Your task to perform on an android device: When is my next meeting? Image 0: 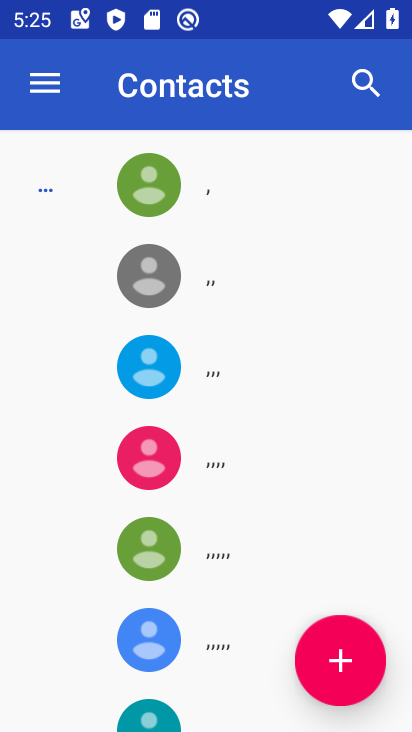
Step 0: press home button
Your task to perform on an android device: When is my next meeting? Image 1: 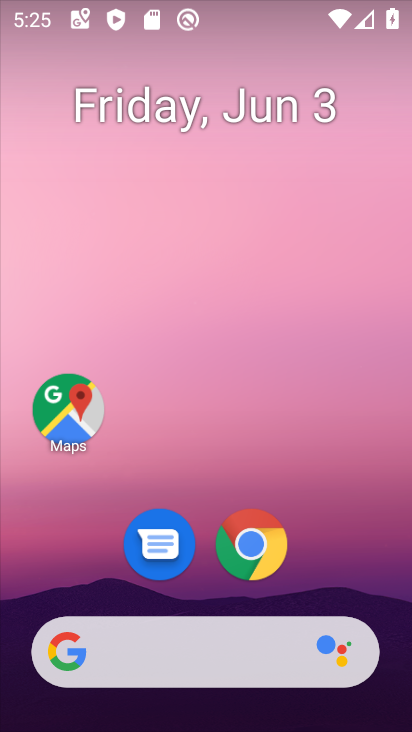
Step 1: drag from (327, 555) to (331, 123)
Your task to perform on an android device: When is my next meeting? Image 2: 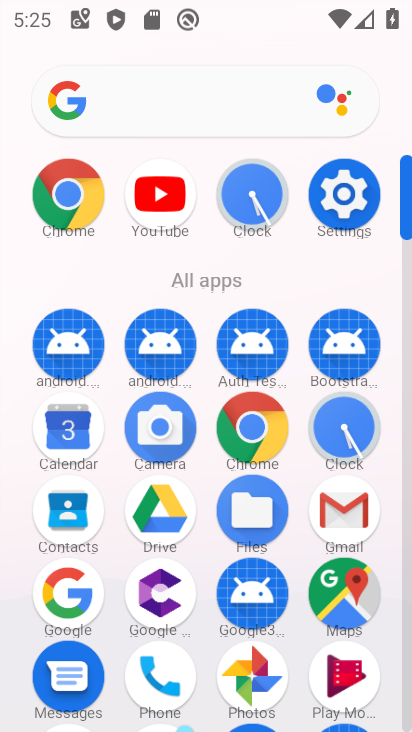
Step 2: click (73, 431)
Your task to perform on an android device: When is my next meeting? Image 3: 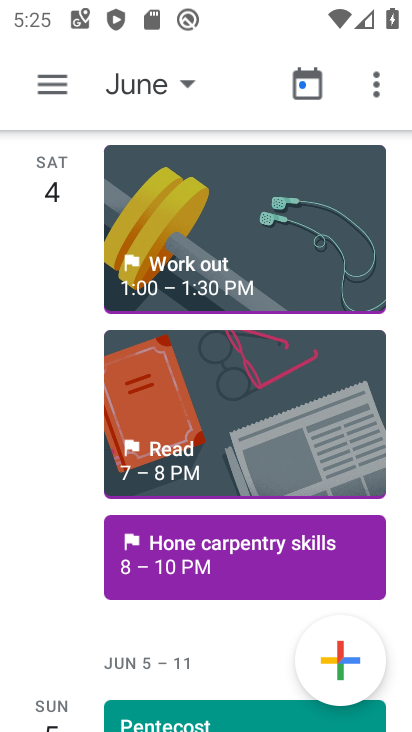
Step 3: click (56, 85)
Your task to perform on an android device: When is my next meeting? Image 4: 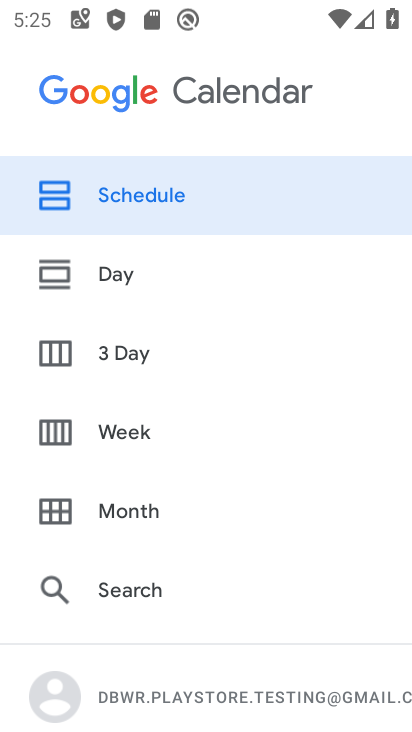
Step 4: click (109, 188)
Your task to perform on an android device: When is my next meeting? Image 5: 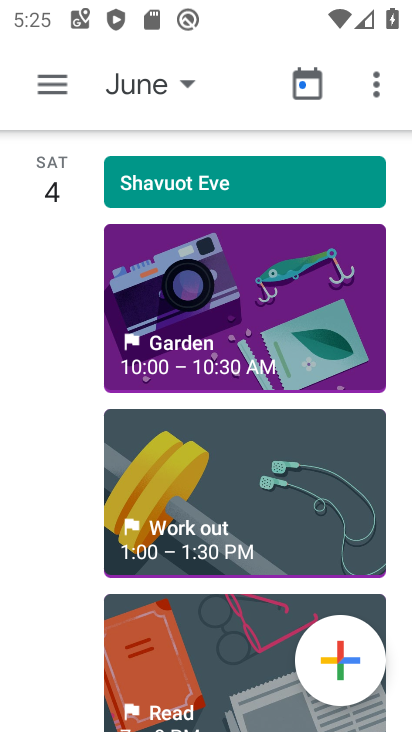
Step 5: task complete